Your task to perform on an android device: Open wifi settings Image 0: 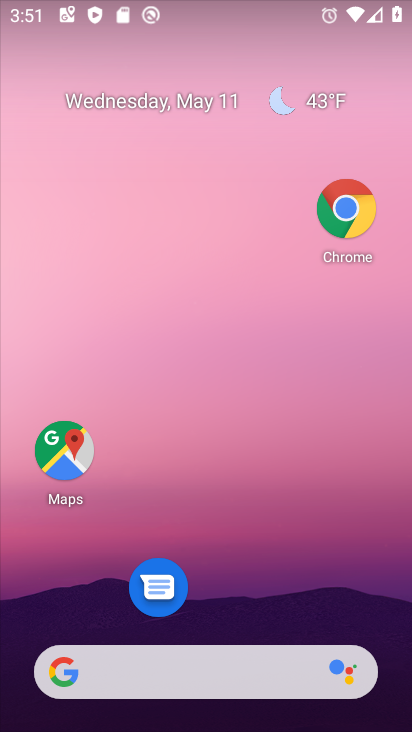
Step 0: drag from (275, 549) to (243, 155)
Your task to perform on an android device: Open wifi settings Image 1: 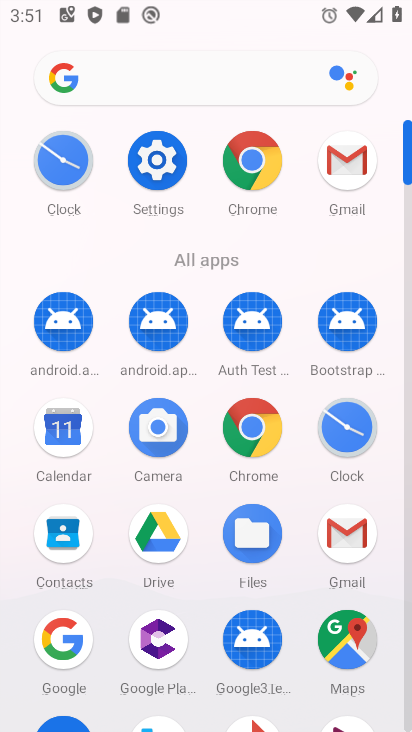
Step 1: click (158, 136)
Your task to perform on an android device: Open wifi settings Image 2: 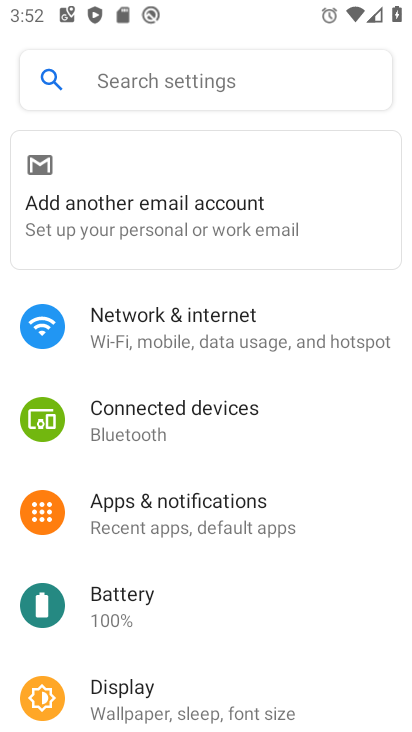
Step 2: click (199, 322)
Your task to perform on an android device: Open wifi settings Image 3: 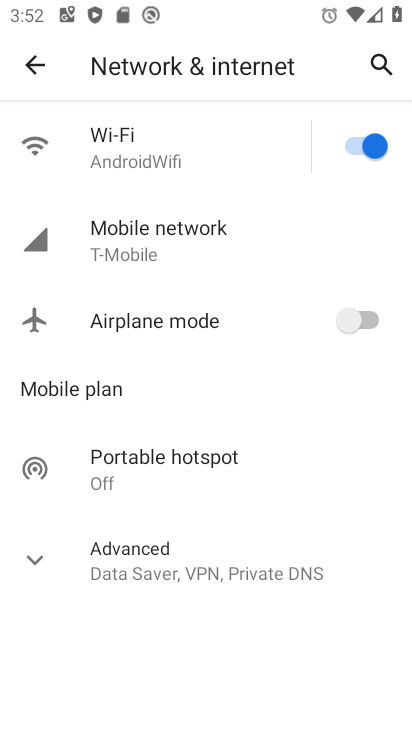
Step 3: click (101, 168)
Your task to perform on an android device: Open wifi settings Image 4: 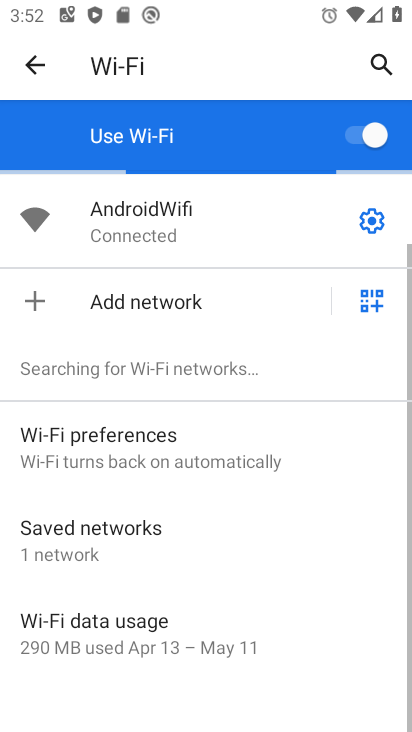
Step 4: task complete